Your task to perform on an android device: Go to settings Image 0: 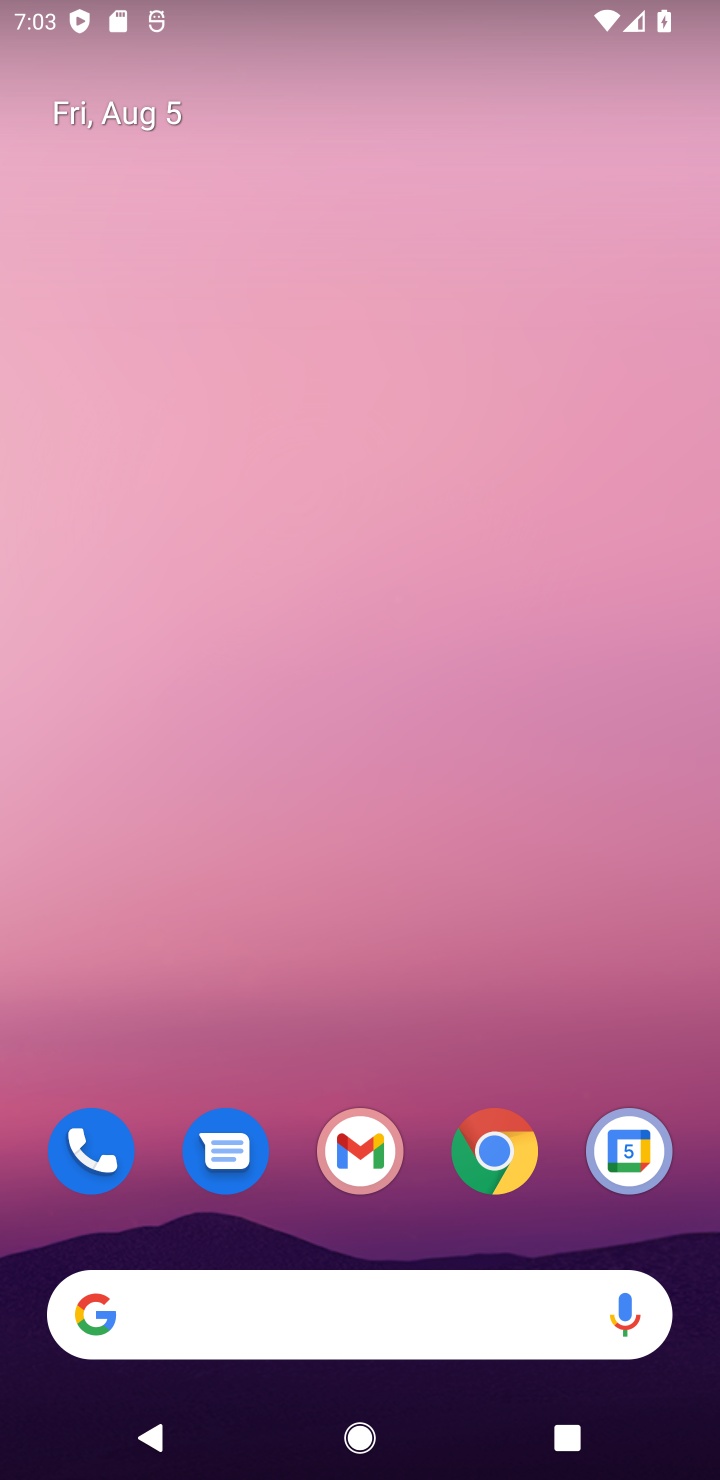
Step 0: drag from (444, 1061) to (356, 303)
Your task to perform on an android device: Go to settings Image 1: 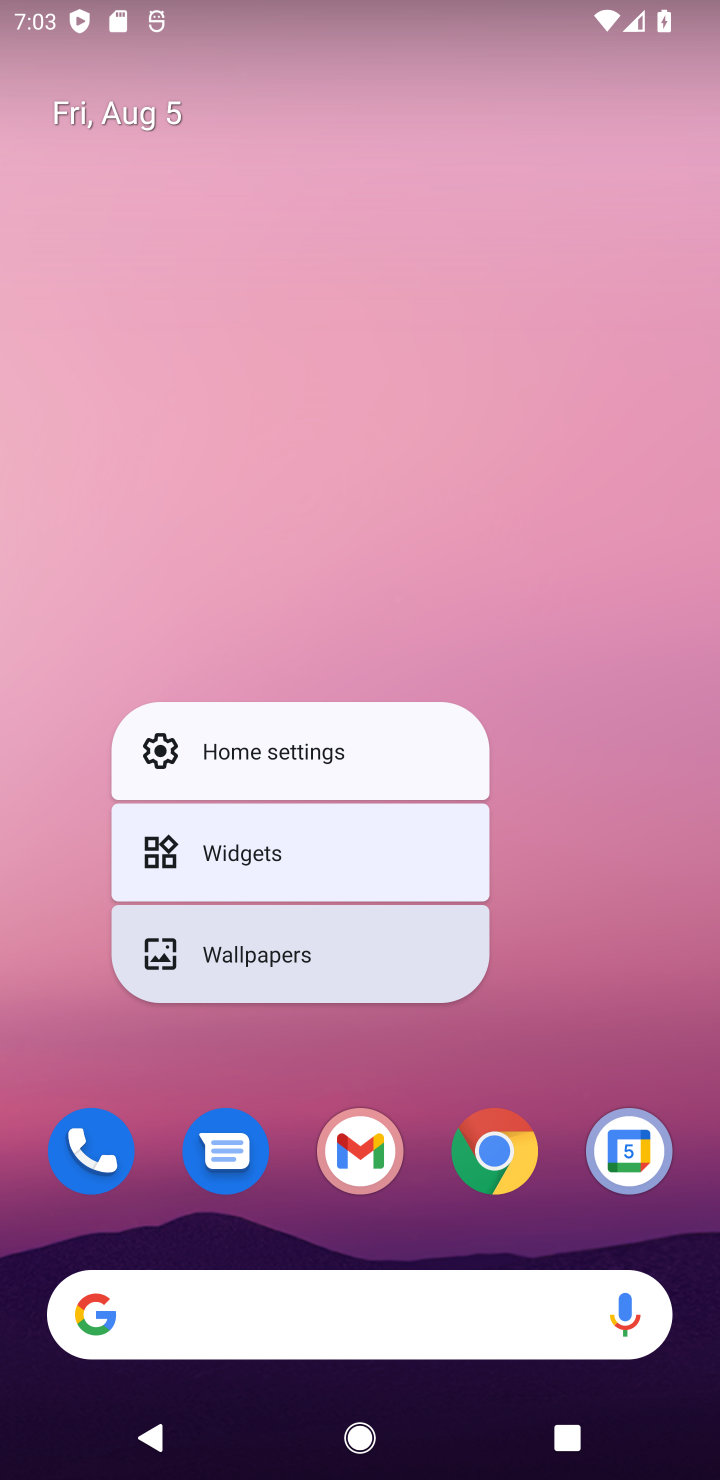
Step 1: click (541, 1078)
Your task to perform on an android device: Go to settings Image 2: 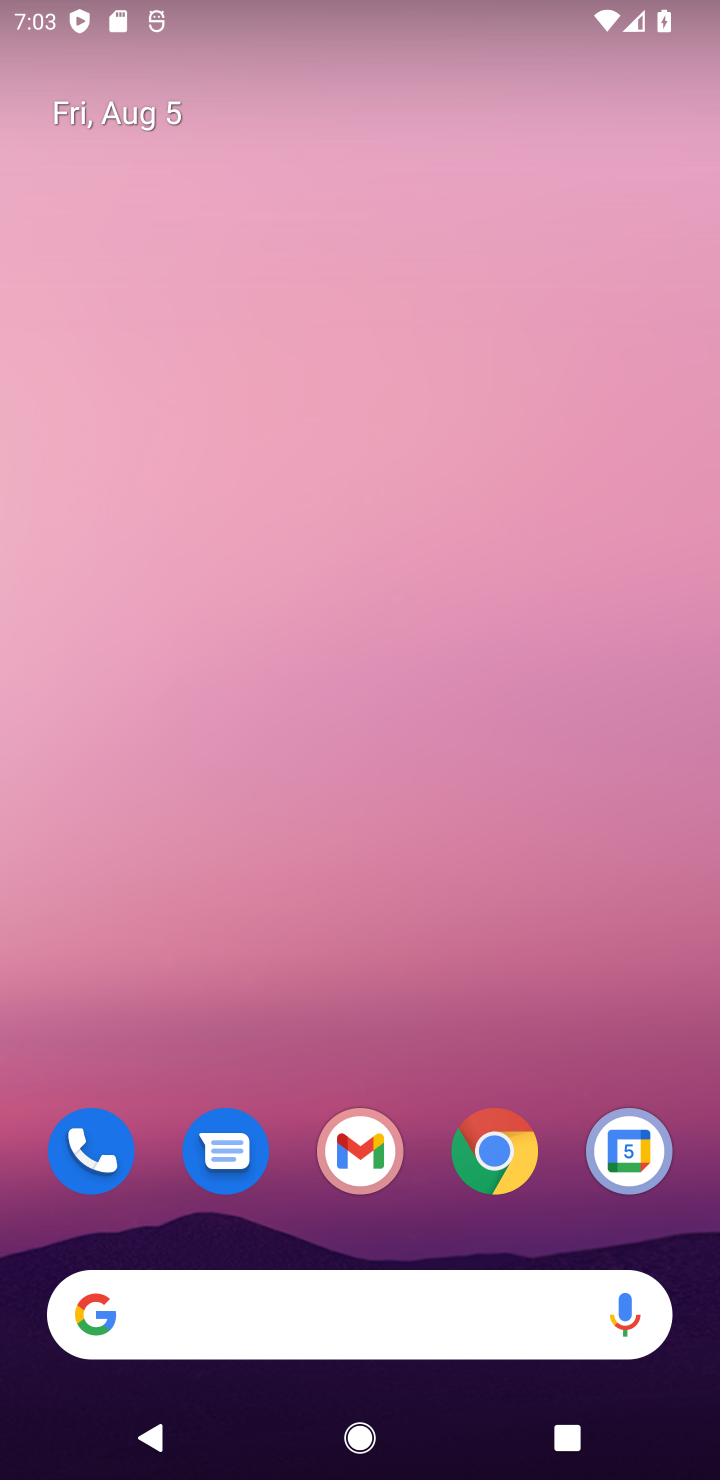
Step 2: drag from (430, 1122) to (454, 718)
Your task to perform on an android device: Go to settings Image 3: 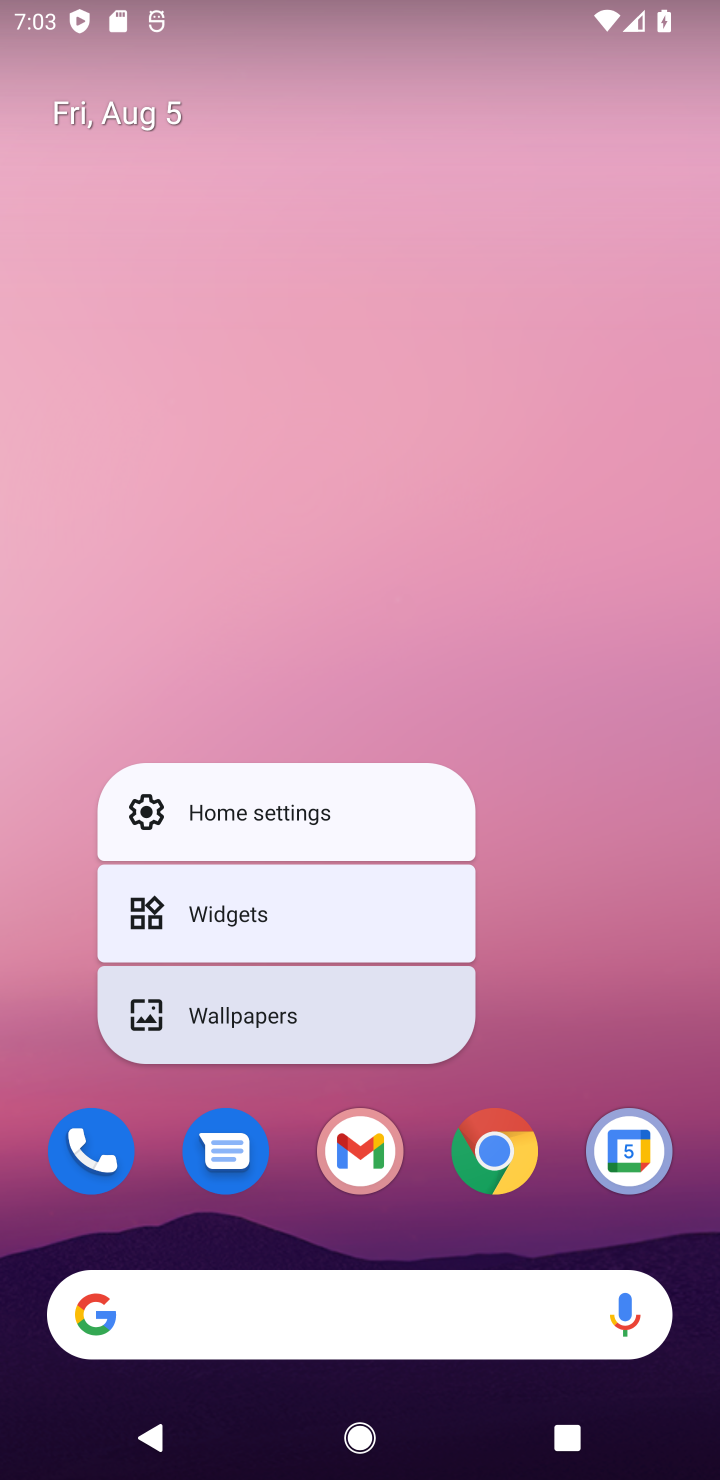
Step 3: click (565, 922)
Your task to perform on an android device: Go to settings Image 4: 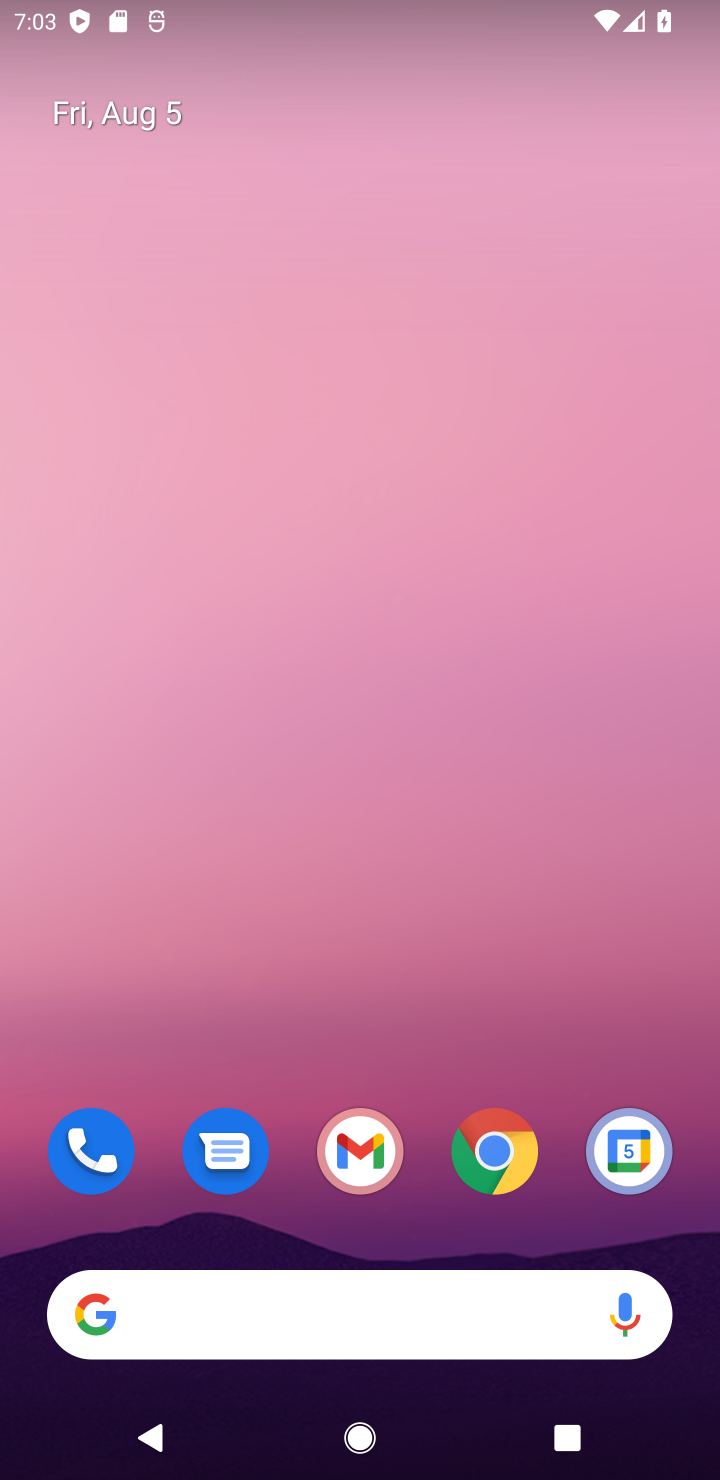
Step 4: drag from (438, 1132) to (585, 67)
Your task to perform on an android device: Go to settings Image 5: 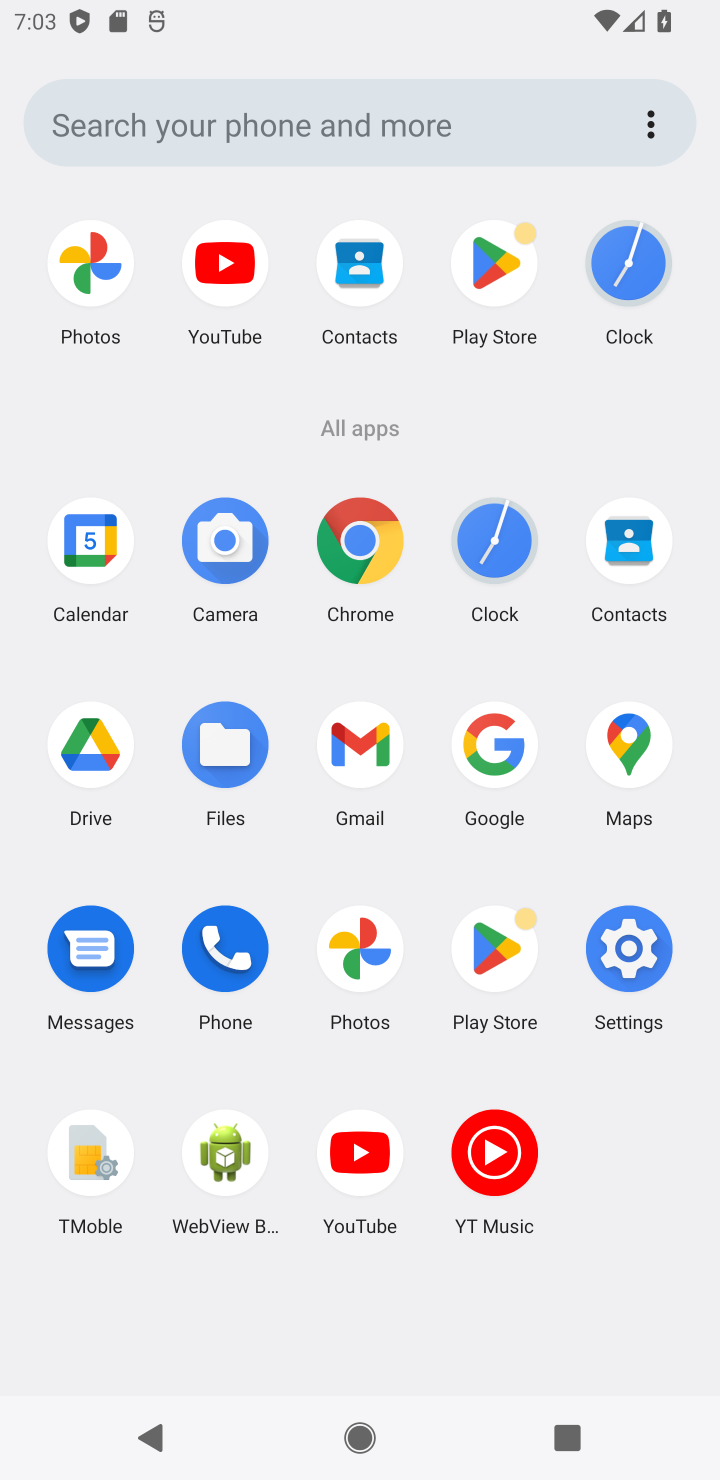
Step 5: click (620, 966)
Your task to perform on an android device: Go to settings Image 6: 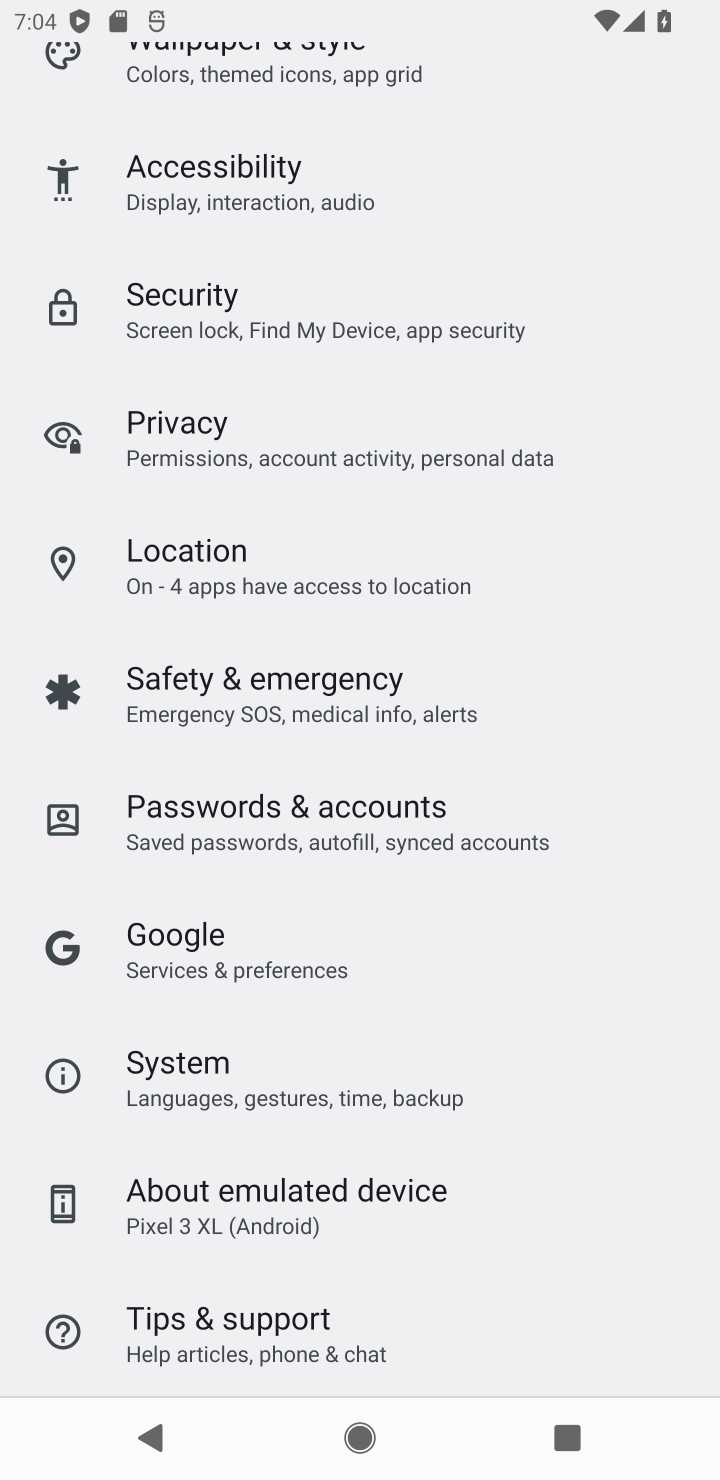
Step 6: task complete